Your task to perform on an android device: find snoozed emails in the gmail app Image 0: 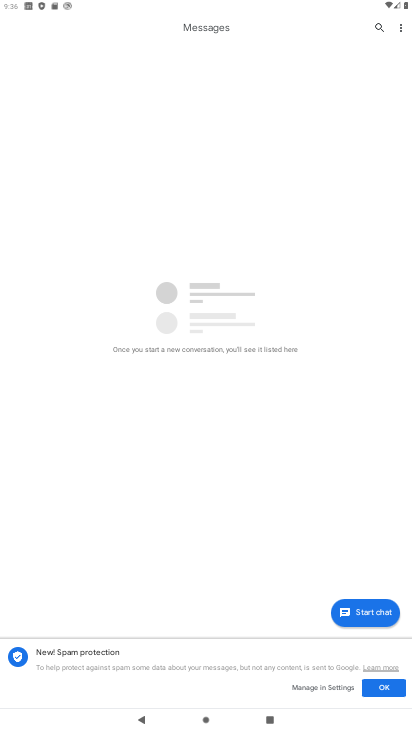
Step 0: press home button
Your task to perform on an android device: find snoozed emails in the gmail app Image 1: 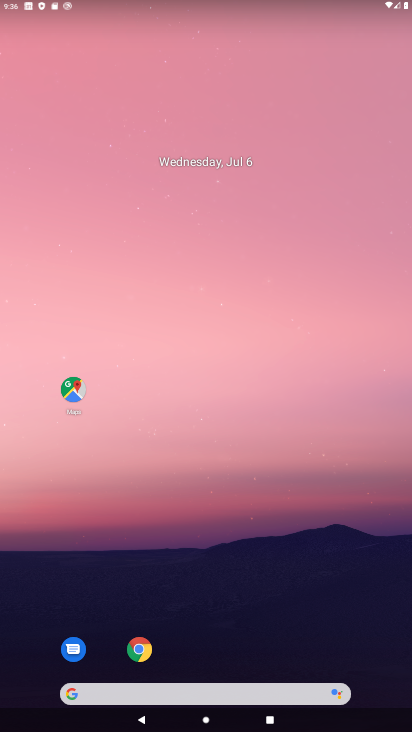
Step 1: drag from (218, 689) to (158, 177)
Your task to perform on an android device: find snoozed emails in the gmail app Image 2: 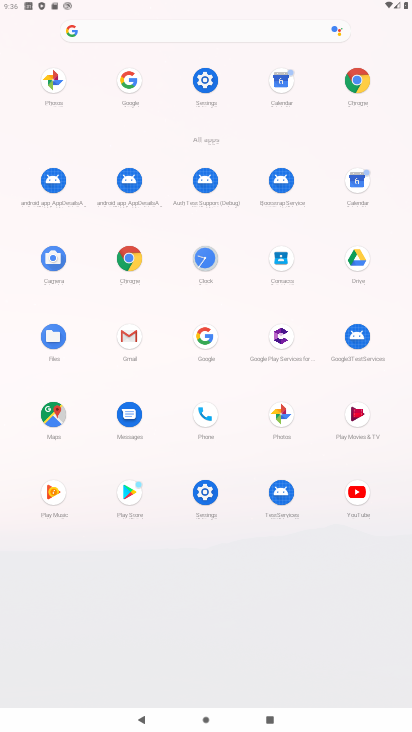
Step 2: click (136, 352)
Your task to perform on an android device: find snoozed emails in the gmail app Image 3: 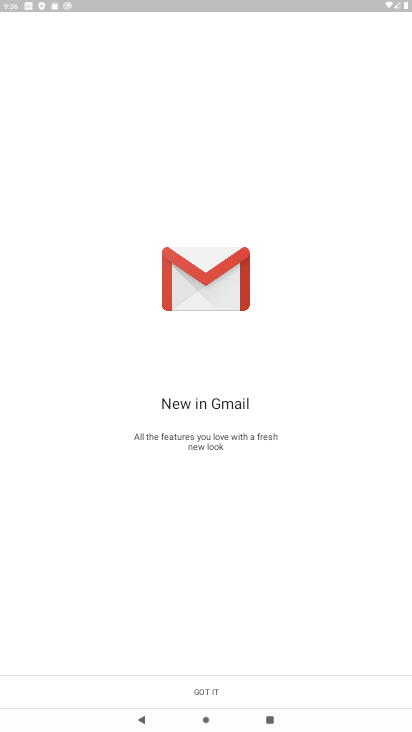
Step 3: click (220, 681)
Your task to perform on an android device: find snoozed emails in the gmail app Image 4: 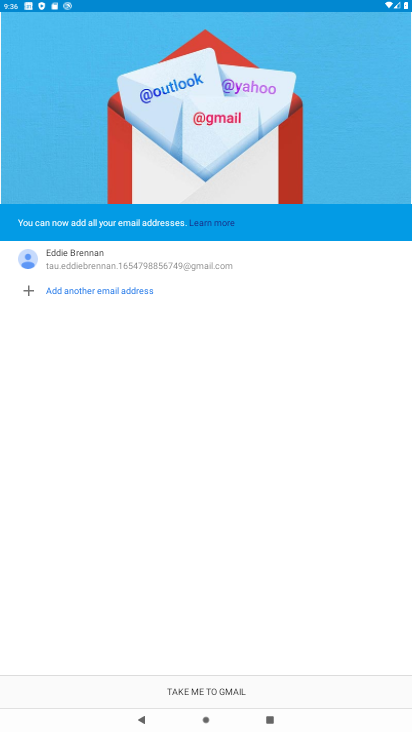
Step 4: click (276, 681)
Your task to perform on an android device: find snoozed emails in the gmail app Image 5: 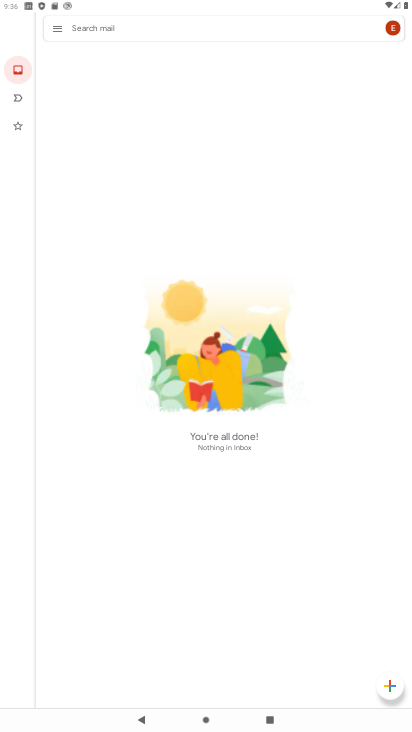
Step 5: click (12, 70)
Your task to perform on an android device: find snoozed emails in the gmail app Image 6: 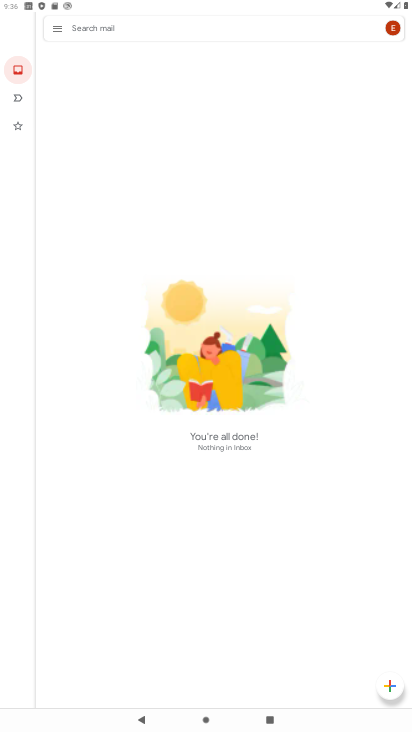
Step 6: drag from (21, 75) to (204, 95)
Your task to perform on an android device: find snoozed emails in the gmail app Image 7: 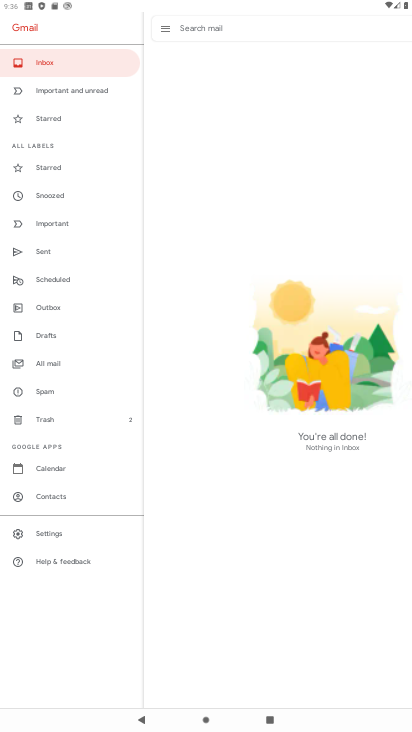
Step 7: click (44, 196)
Your task to perform on an android device: find snoozed emails in the gmail app Image 8: 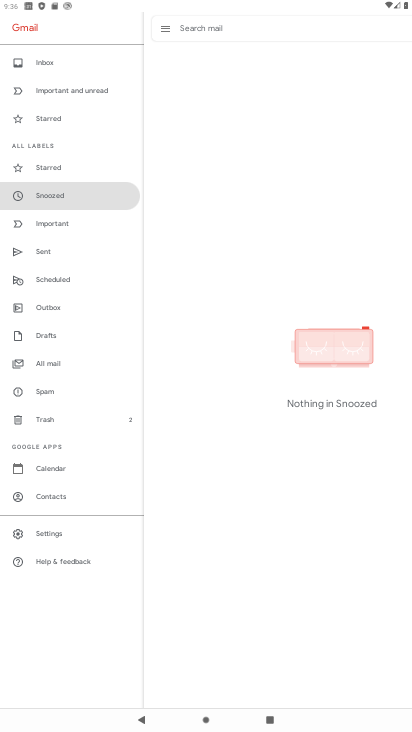
Step 8: task complete